Your task to perform on an android device: Open Yahoo.com Image 0: 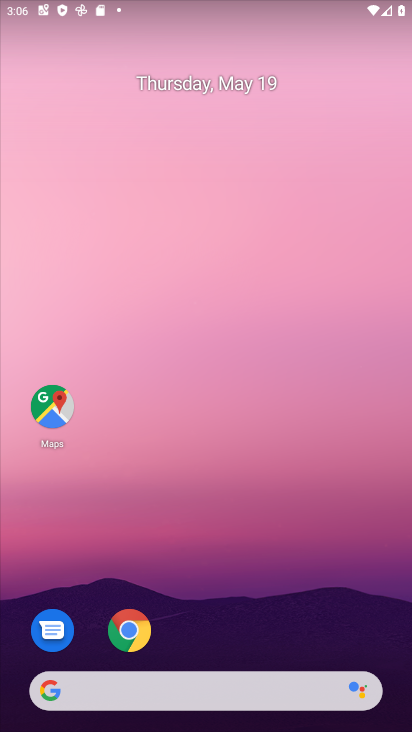
Step 0: click (124, 634)
Your task to perform on an android device: Open Yahoo.com Image 1: 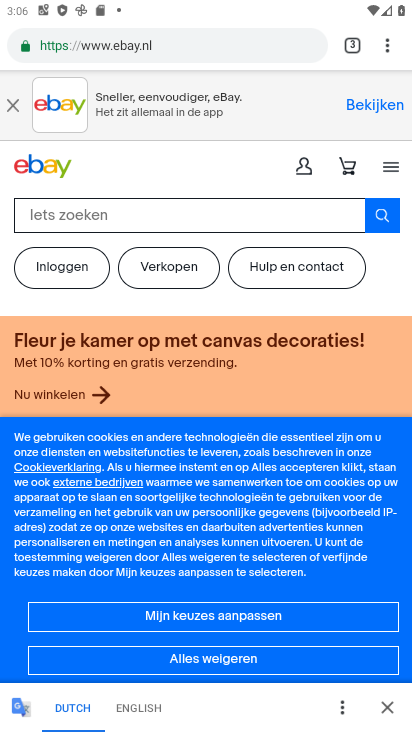
Step 1: click (172, 40)
Your task to perform on an android device: Open Yahoo.com Image 2: 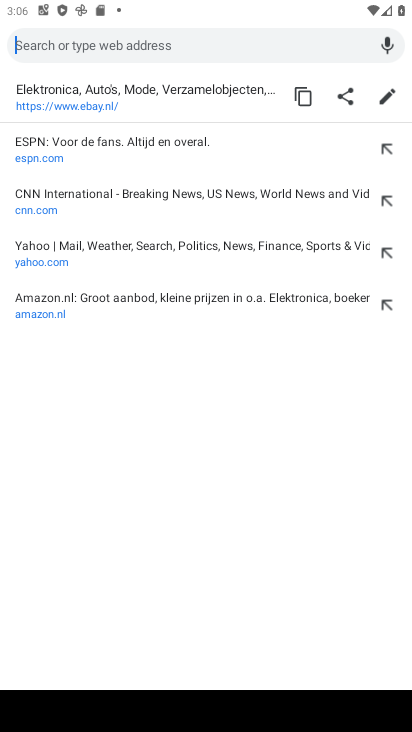
Step 2: type "yahoo.com"
Your task to perform on an android device: Open Yahoo.com Image 3: 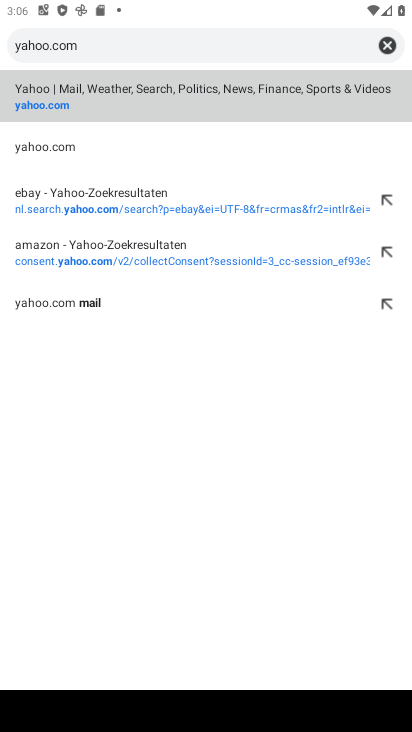
Step 3: click (48, 88)
Your task to perform on an android device: Open Yahoo.com Image 4: 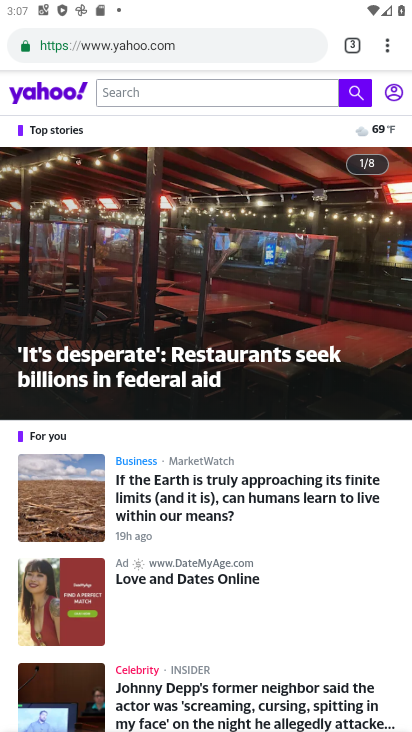
Step 4: task complete